Your task to perform on an android device: set an alarm Image 0: 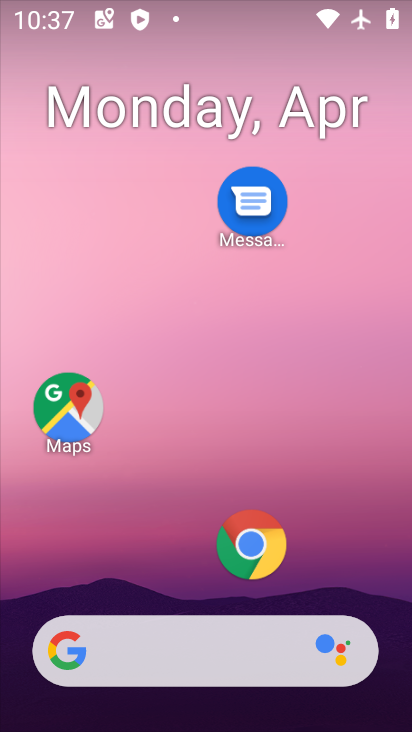
Step 0: drag from (194, 582) to (215, 101)
Your task to perform on an android device: set an alarm Image 1: 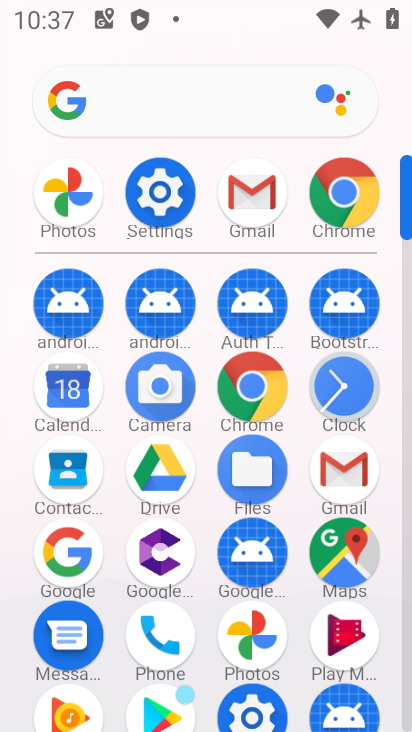
Step 1: click (341, 379)
Your task to perform on an android device: set an alarm Image 2: 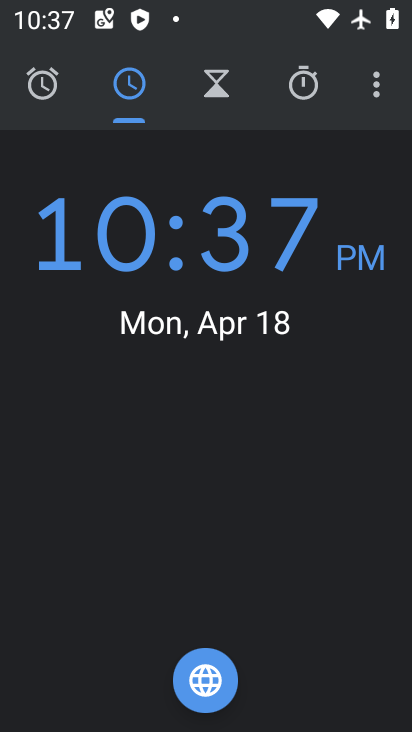
Step 2: click (39, 77)
Your task to perform on an android device: set an alarm Image 3: 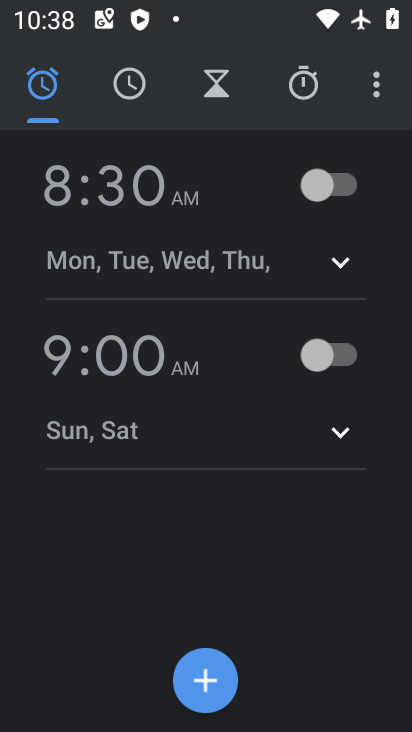
Step 3: click (119, 349)
Your task to perform on an android device: set an alarm Image 4: 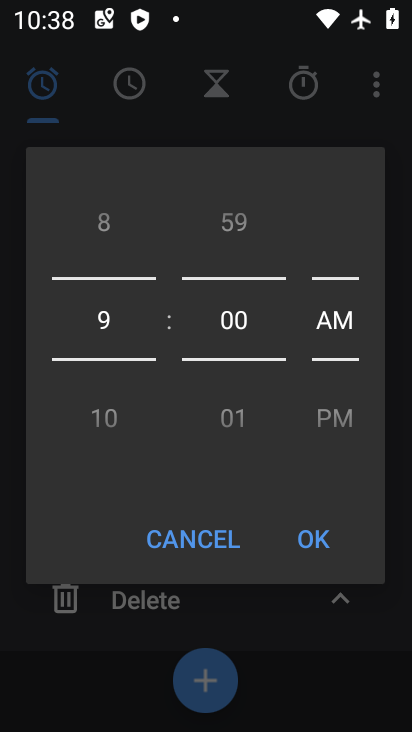
Step 4: click (311, 538)
Your task to perform on an android device: set an alarm Image 5: 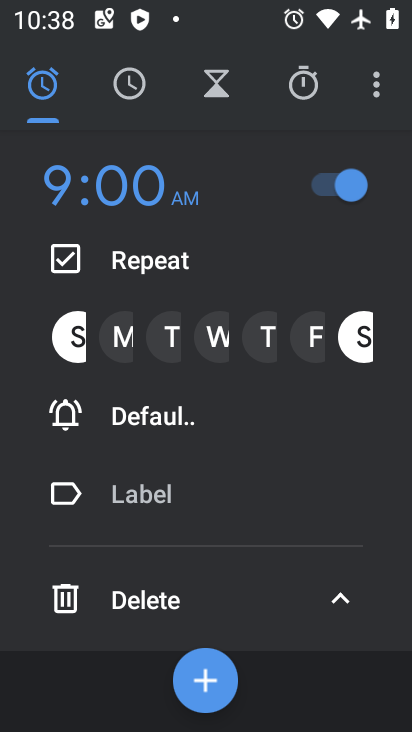
Step 5: click (116, 337)
Your task to perform on an android device: set an alarm Image 6: 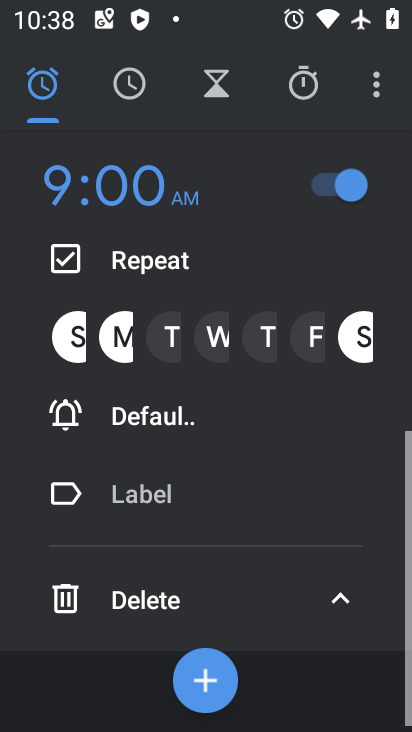
Step 6: click (174, 333)
Your task to perform on an android device: set an alarm Image 7: 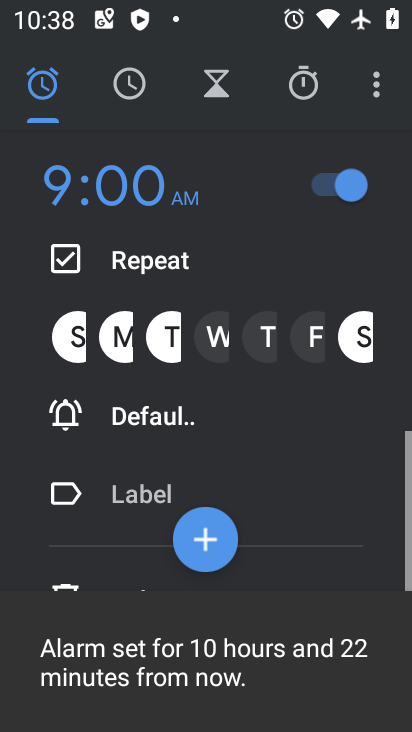
Step 7: click (210, 339)
Your task to perform on an android device: set an alarm Image 8: 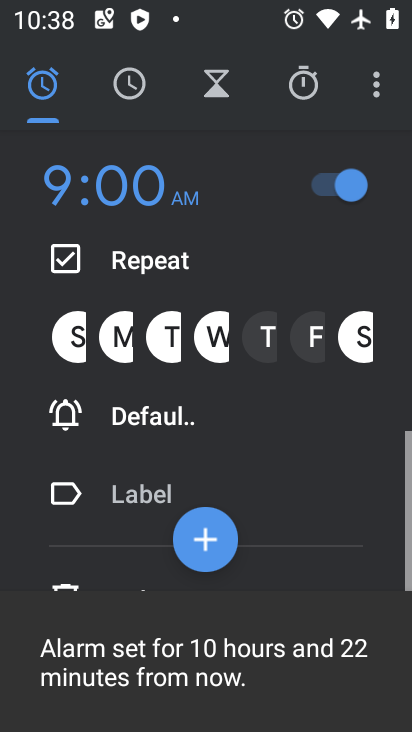
Step 8: click (258, 339)
Your task to perform on an android device: set an alarm Image 9: 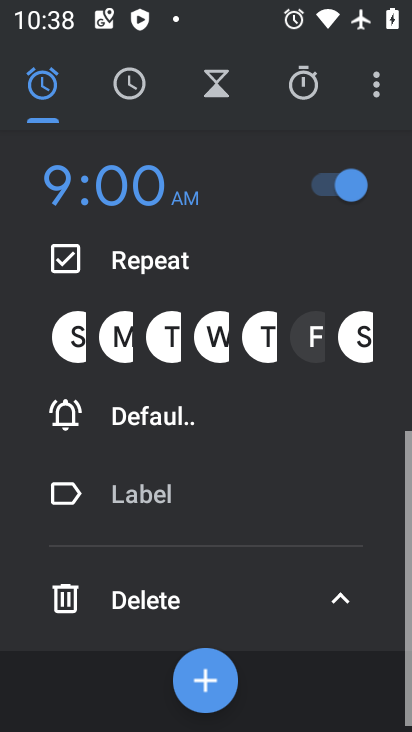
Step 9: click (311, 335)
Your task to perform on an android device: set an alarm Image 10: 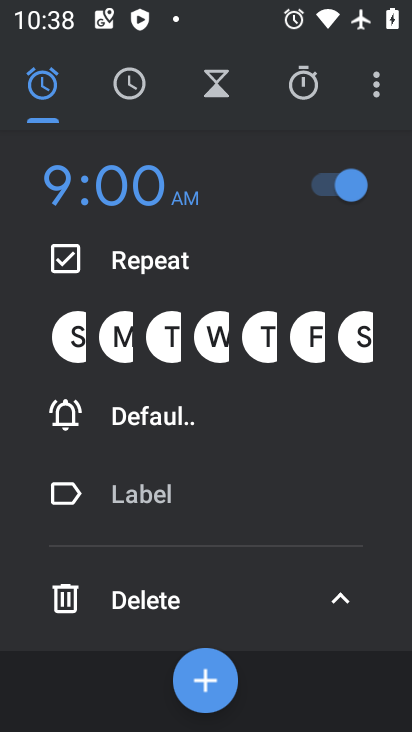
Step 10: drag from (231, 535) to (256, 297)
Your task to perform on an android device: set an alarm Image 11: 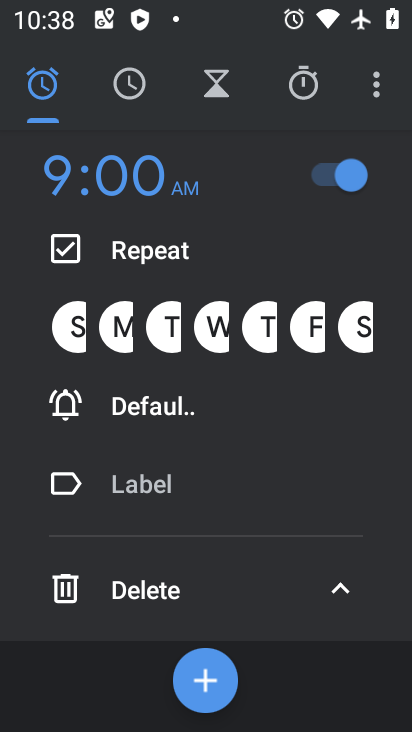
Step 11: click (149, 476)
Your task to perform on an android device: set an alarm Image 12: 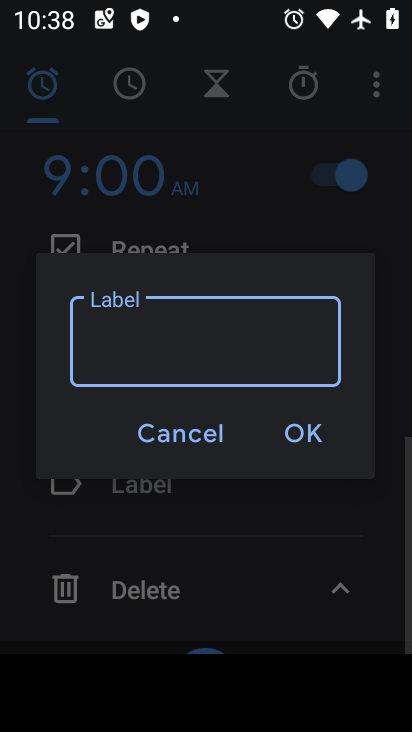
Step 12: click (305, 440)
Your task to perform on an android device: set an alarm Image 13: 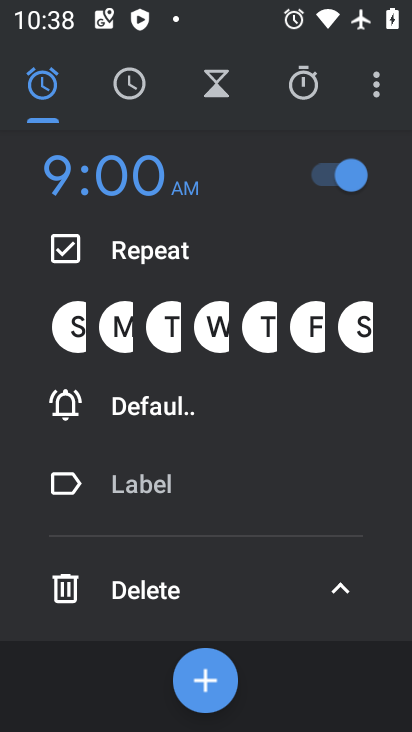
Step 13: click (285, 694)
Your task to perform on an android device: set an alarm Image 14: 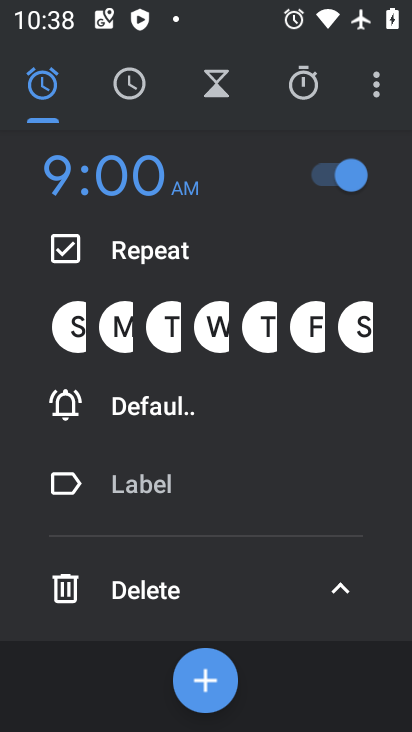
Step 14: task complete